Your task to perform on an android device: Go to notification settings Image 0: 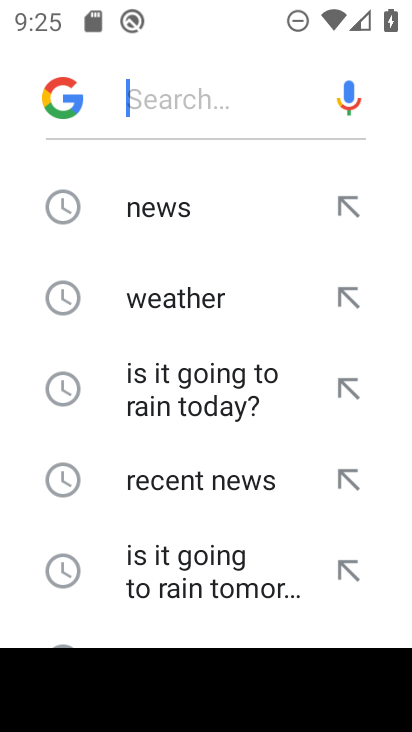
Step 0: press home button
Your task to perform on an android device: Go to notification settings Image 1: 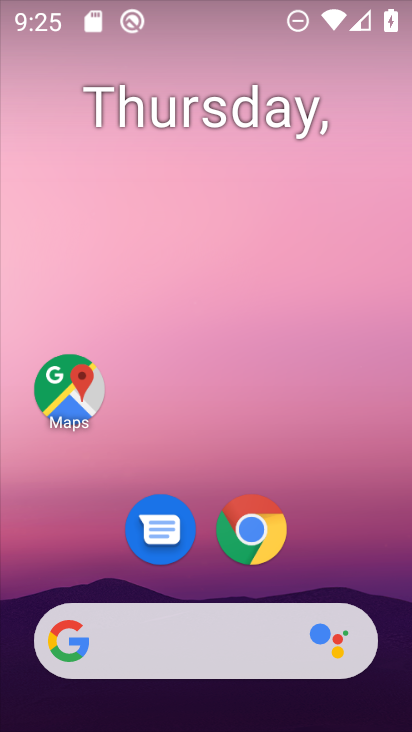
Step 1: drag from (191, 726) to (197, 32)
Your task to perform on an android device: Go to notification settings Image 2: 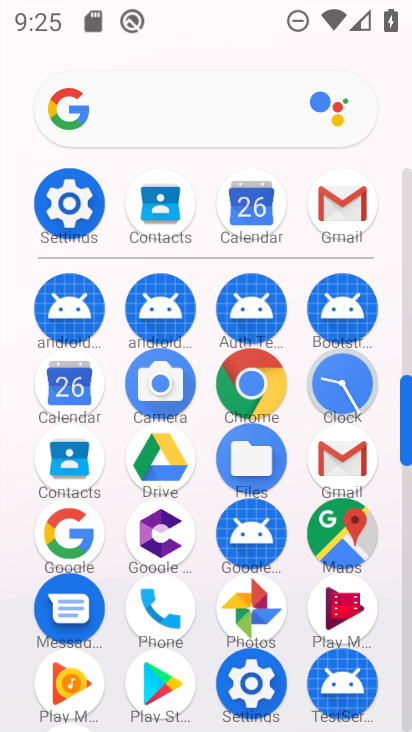
Step 2: click (72, 212)
Your task to perform on an android device: Go to notification settings Image 3: 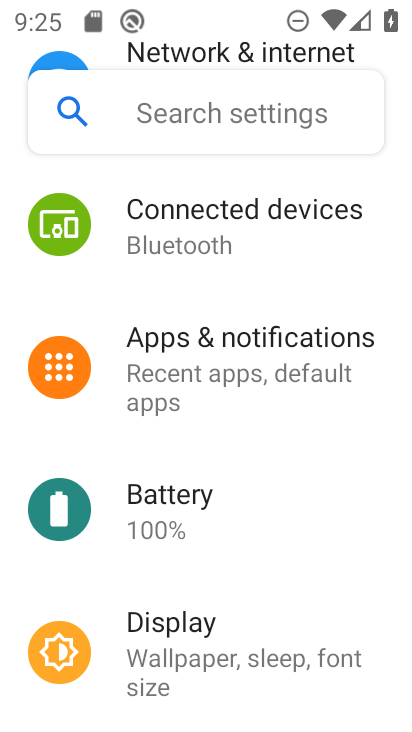
Step 3: click (219, 343)
Your task to perform on an android device: Go to notification settings Image 4: 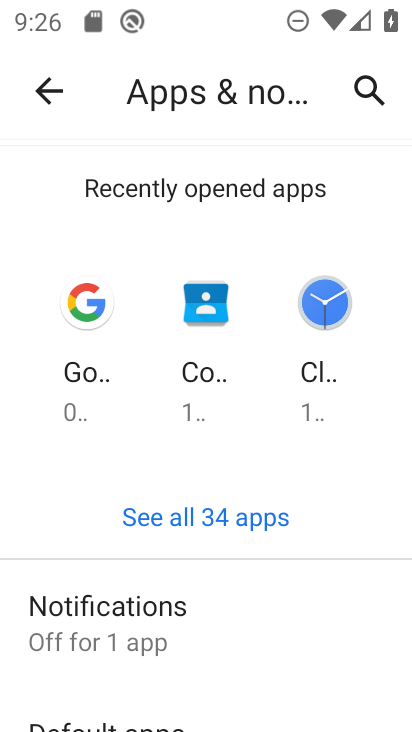
Step 4: click (109, 621)
Your task to perform on an android device: Go to notification settings Image 5: 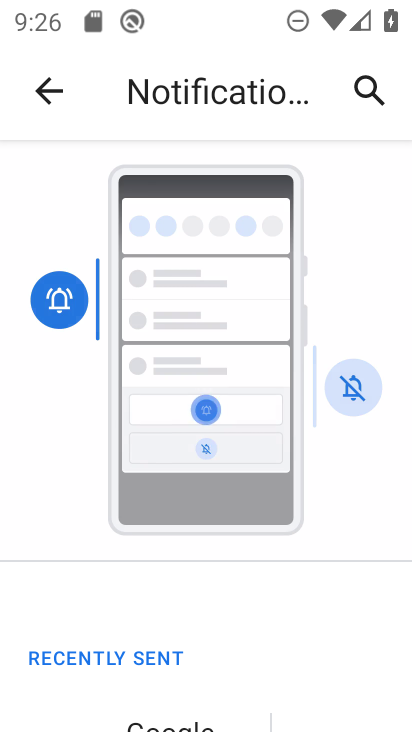
Step 5: task complete